Your task to perform on an android device: allow notifications from all sites in the chrome app Image 0: 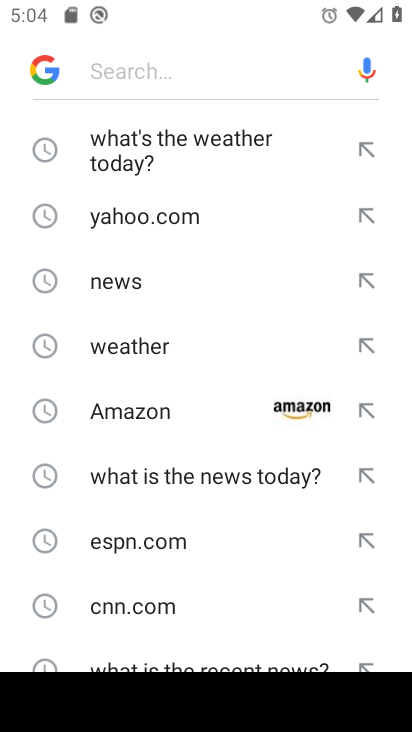
Step 0: press back button
Your task to perform on an android device: allow notifications from all sites in the chrome app Image 1: 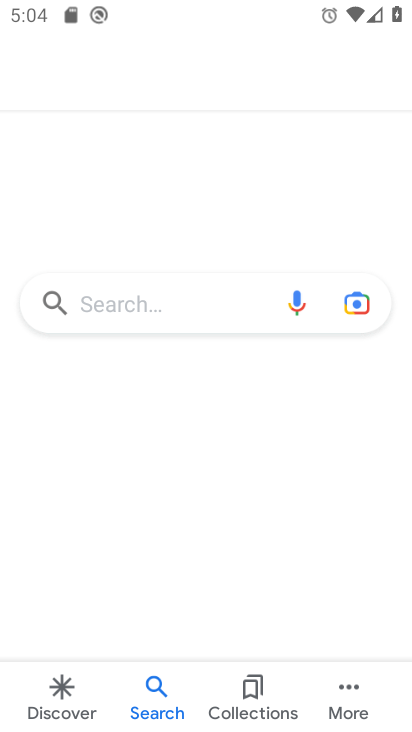
Step 1: press back button
Your task to perform on an android device: allow notifications from all sites in the chrome app Image 2: 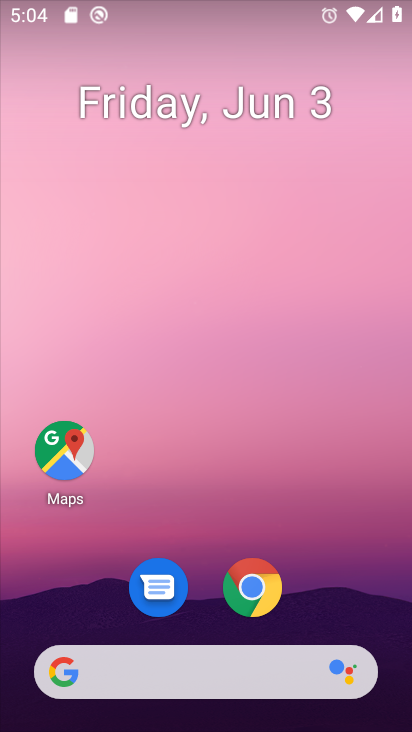
Step 2: drag from (133, 717) to (158, 2)
Your task to perform on an android device: allow notifications from all sites in the chrome app Image 3: 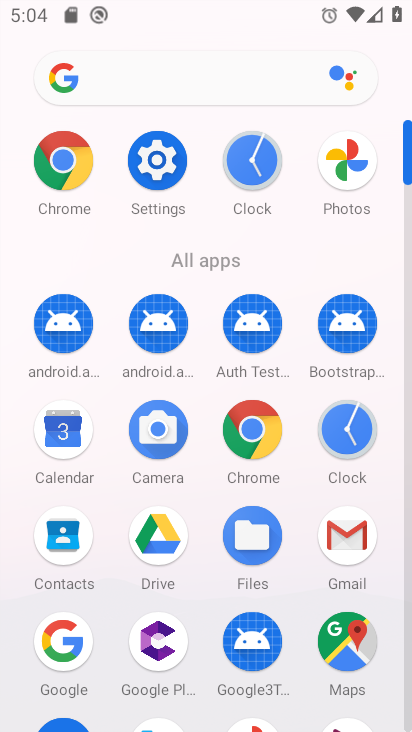
Step 3: click (59, 162)
Your task to perform on an android device: allow notifications from all sites in the chrome app Image 4: 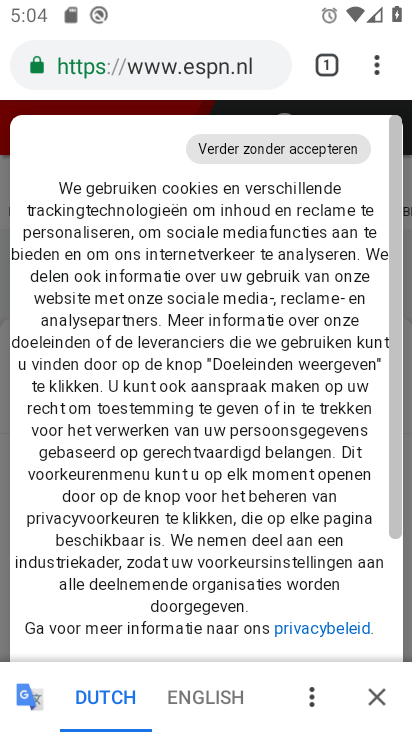
Step 4: click (319, 62)
Your task to perform on an android device: allow notifications from all sites in the chrome app Image 5: 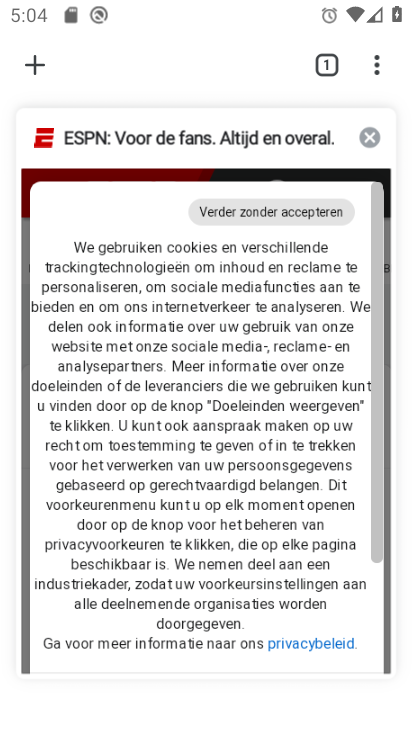
Step 5: click (379, 143)
Your task to perform on an android device: allow notifications from all sites in the chrome app Image 6: 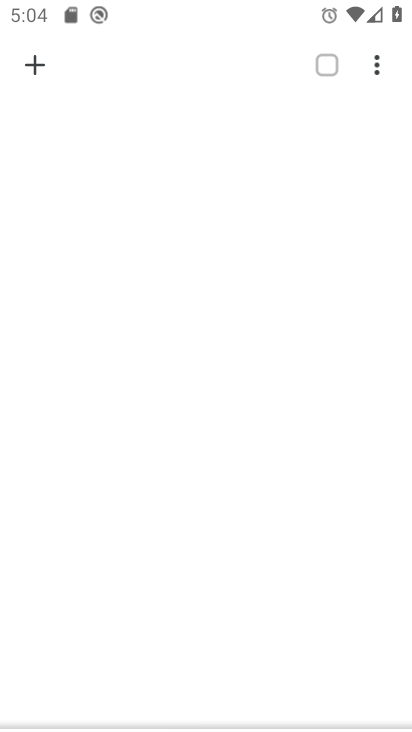
Step 6: click (379, 63)
Your task to perform on an android device: allow notifications from all sites in the chrome app Image 7: 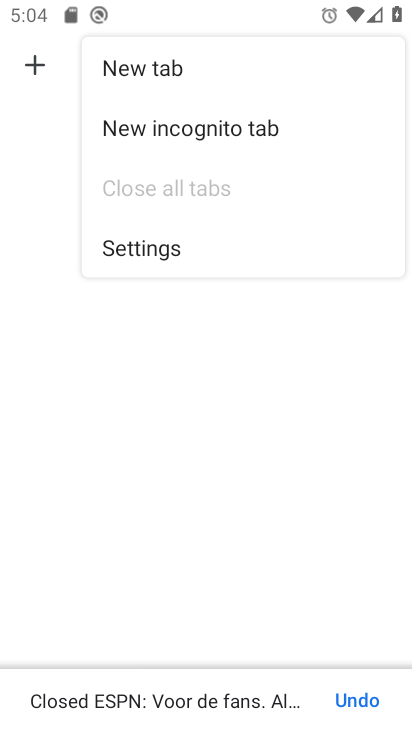
Step 7: click (138, 249)
Your task to perform on an android device: allow notifications from all sites in the chrome app Image 8: 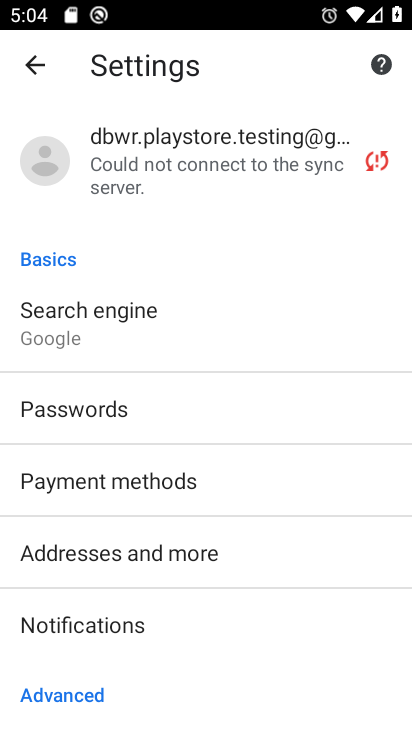
Step 8: drag from (197, 645) to (220, 209)
Your task to perform on an android device: allow notifications from all sites in the chrome app Image 9: 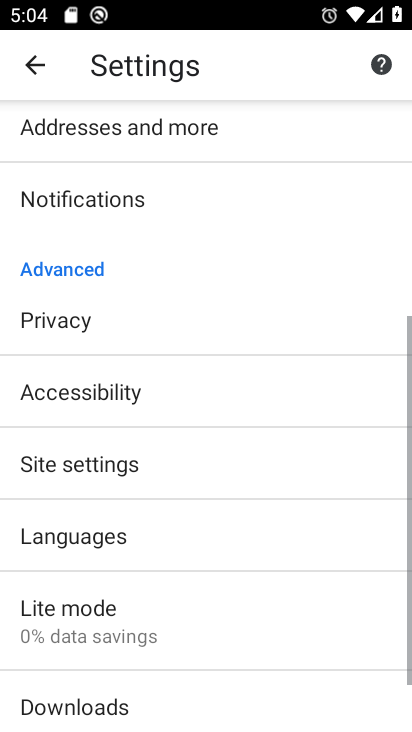
Step 9: click (137, 210)
Your task to perform on an android device: allow notifications from all sites in the chrome app Image 10: 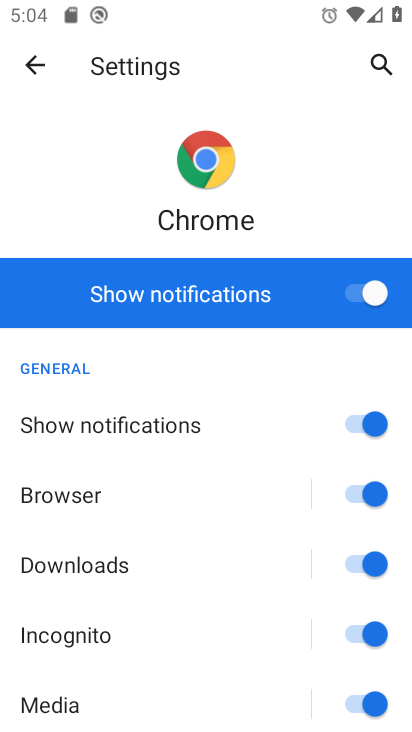
Step 10: task complete